Your task to perform on an android device: turn pop-ups off in chrome Image 0: 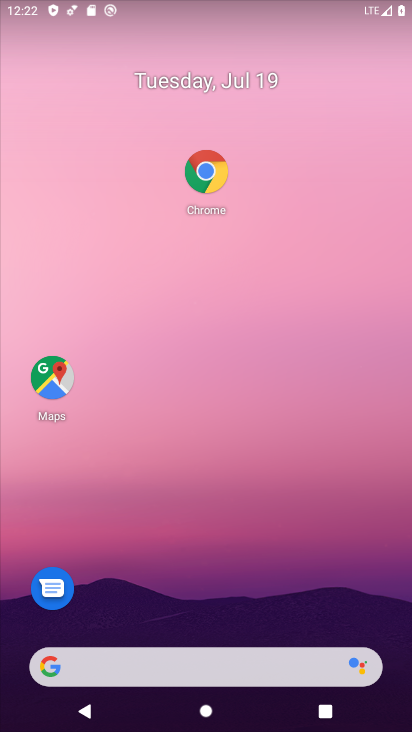
Step 0: click (201, 192)
Your task to perform on an android device: turn pop-ups off in chrome Image 1: 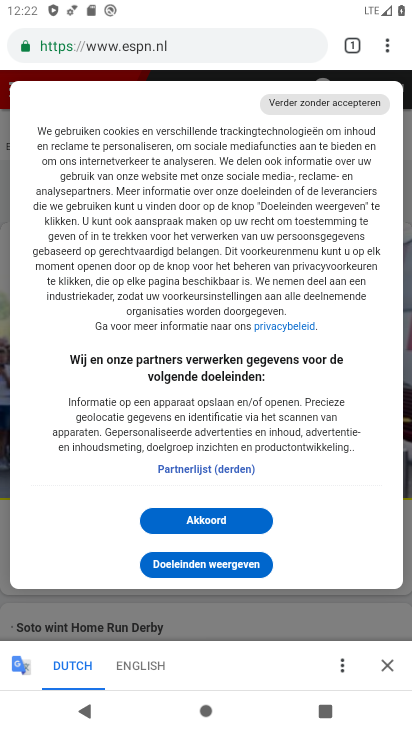
Step 1: click (382, 52)
Your task to perform on an android device: turn pop-ups off in chrome Image 2: 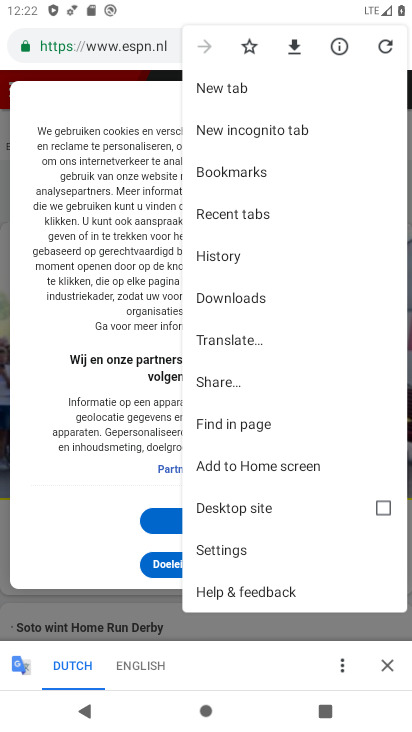
Step 2: click (264, 546)
Your task to perform on an android device: turn pop-ups off in chrome Image 3: 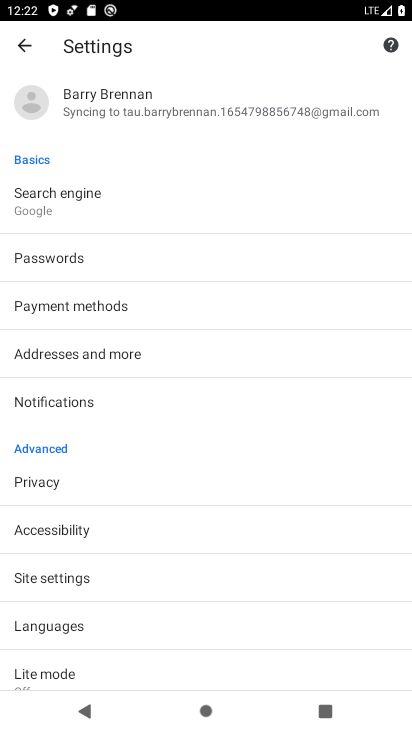
Step 3: drag from (157, 664) to (163, 327)
Your task to perform on an android device: turn pop-ups off in chrome Image 4: 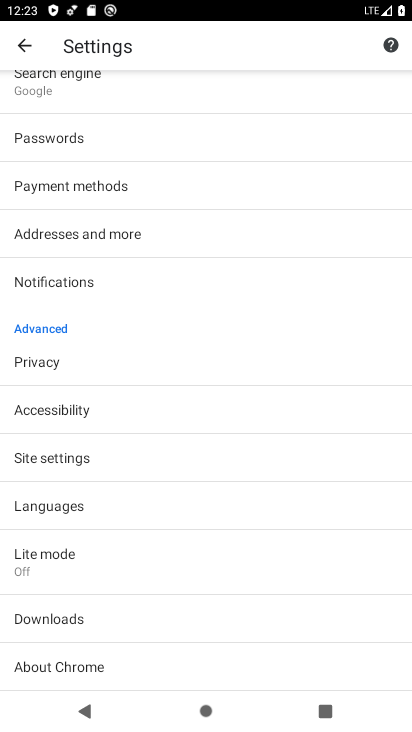
Step 4: drag from (137, 565) to (191, 274)
Your task to perform on an android device: turn pop-ups off in chrome Image 5: 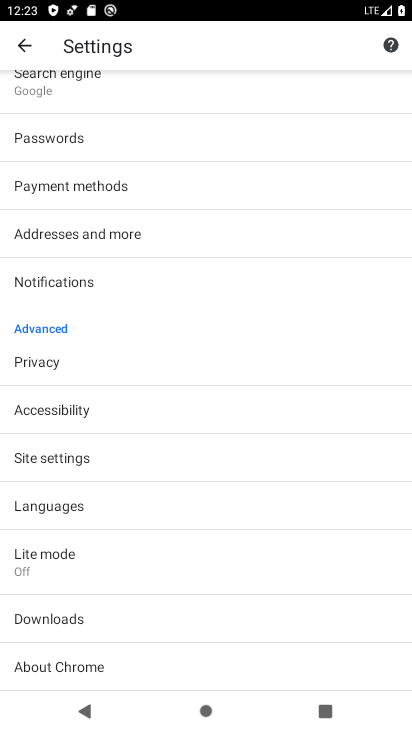
Step 5: drag from (106, 647) to (183, 120)
Your task to perform on an android device: turn pop-ups off in chrome Image 6: 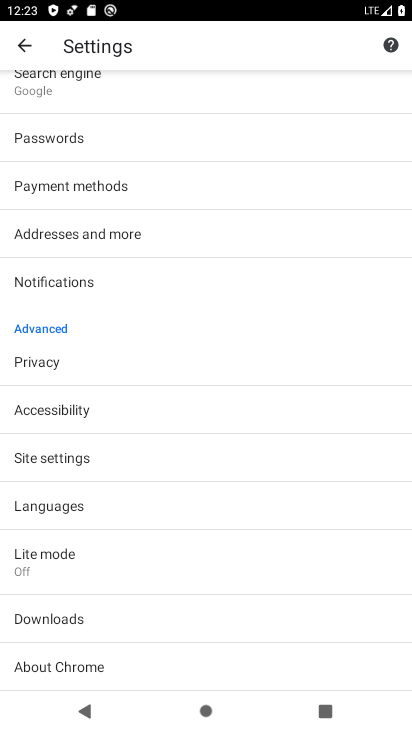
Step 6: drag from (155, 640) to (221, 168)
Your task to perform on an android device: turn pop-ups off in chrome Image 7: 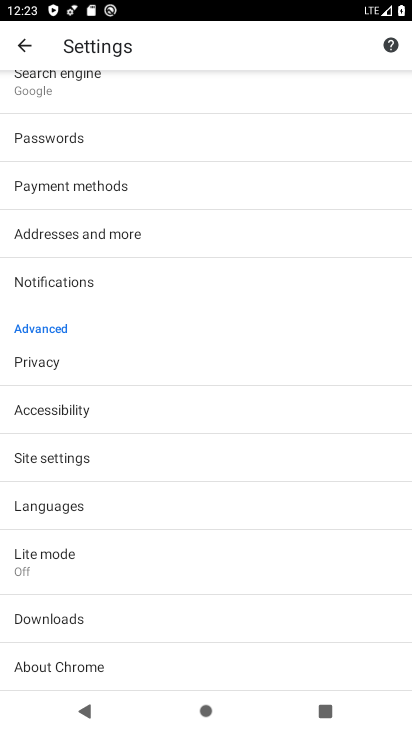
Step 7: click (94, 446)
Your task to perform on an android device: turn pop-ups off in chrome Image 8: 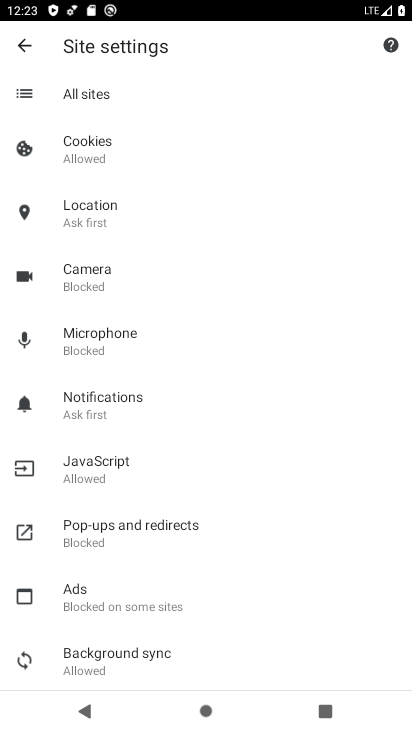
Step 8: click (142, 529)
Your task to perform on an android device: turn pop-ups off in chrome Image 9: 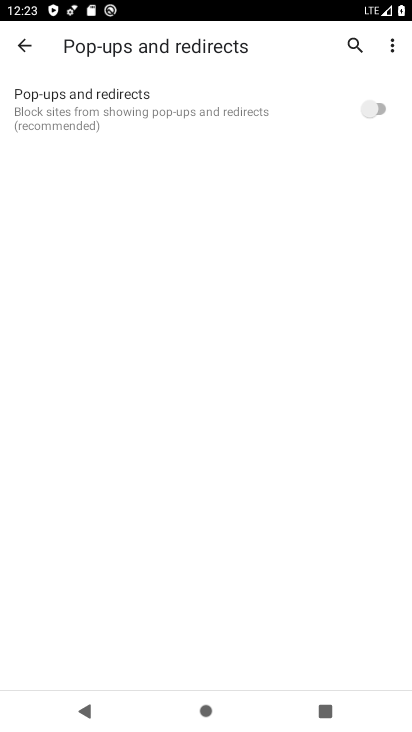
Step 9: task complete